Your task to perform on an android device: Open Yahoo.com Image 0: 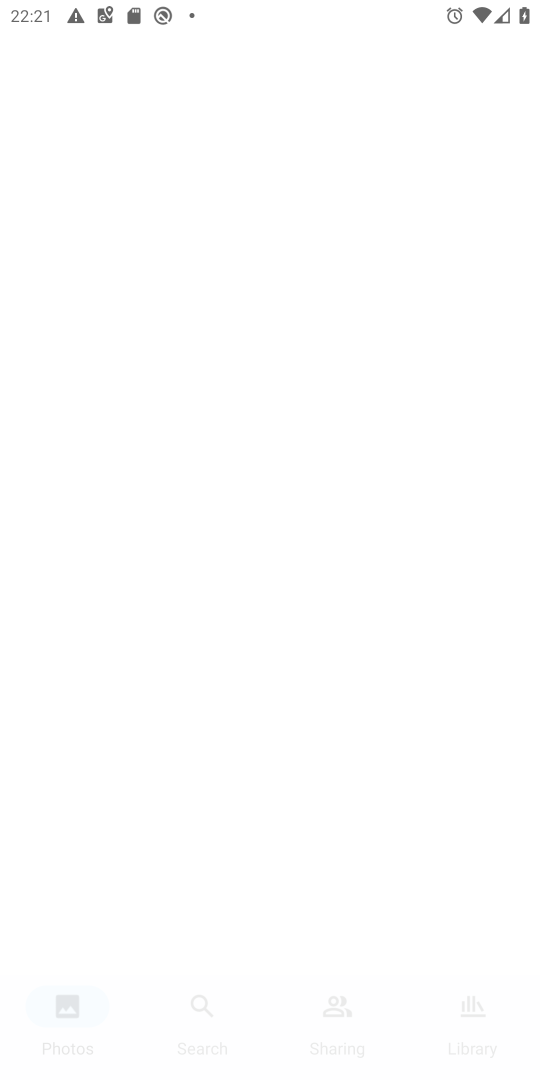
Step 0: press home button
Your task to perform on an android device: Open Yahoo.com Image 1: 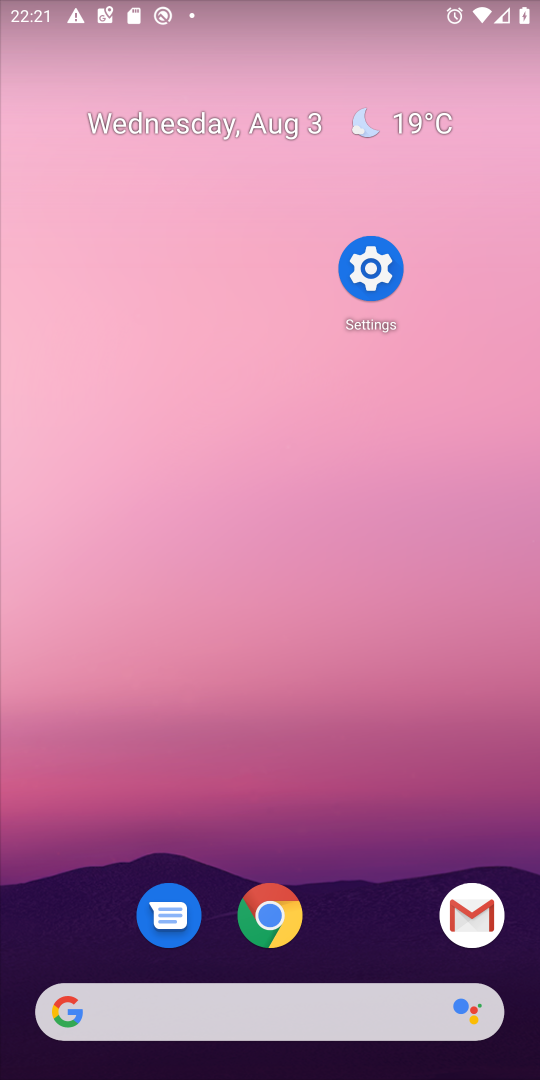
Step 1: drag from (298, 1024) to (238, 271)
Your task to perform on an android device: Open Yahoo.com Image 2: 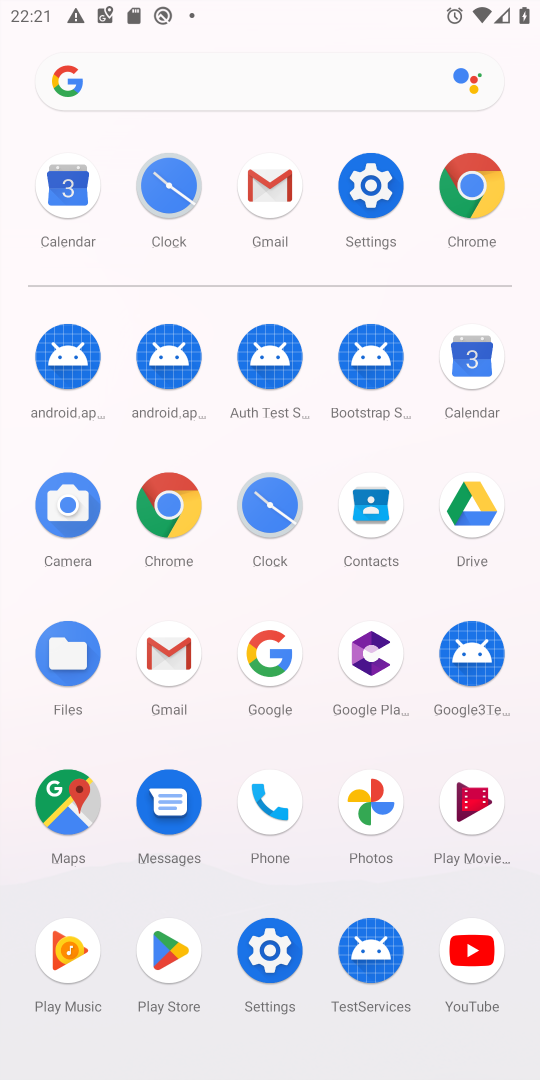
Step 2: click (466, 187)
Your task to perform on an android device: Open Yahoo.com Image 3: 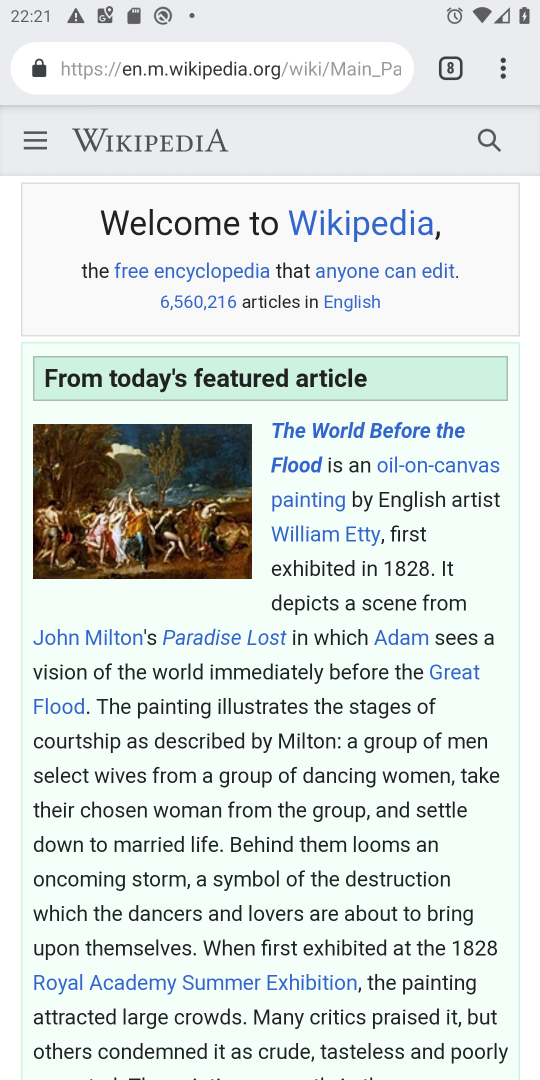
Step 3: click (445, 75)
Your task to perform on an android device: Open Yahoo.com Image 4: 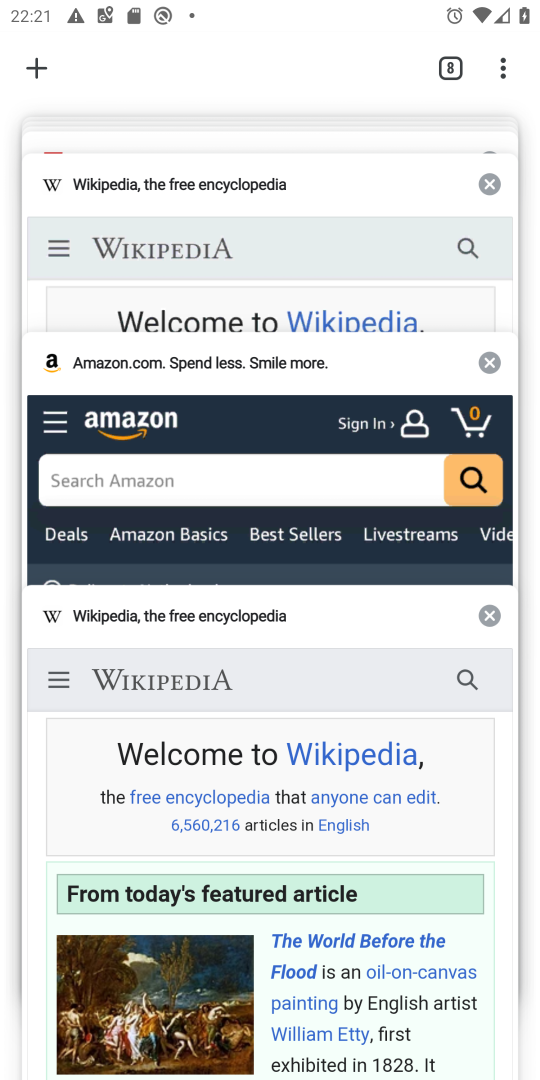
Step 4: click (30, 63)
Your task to perform on an android device: Open Yahoo.com Image 5: 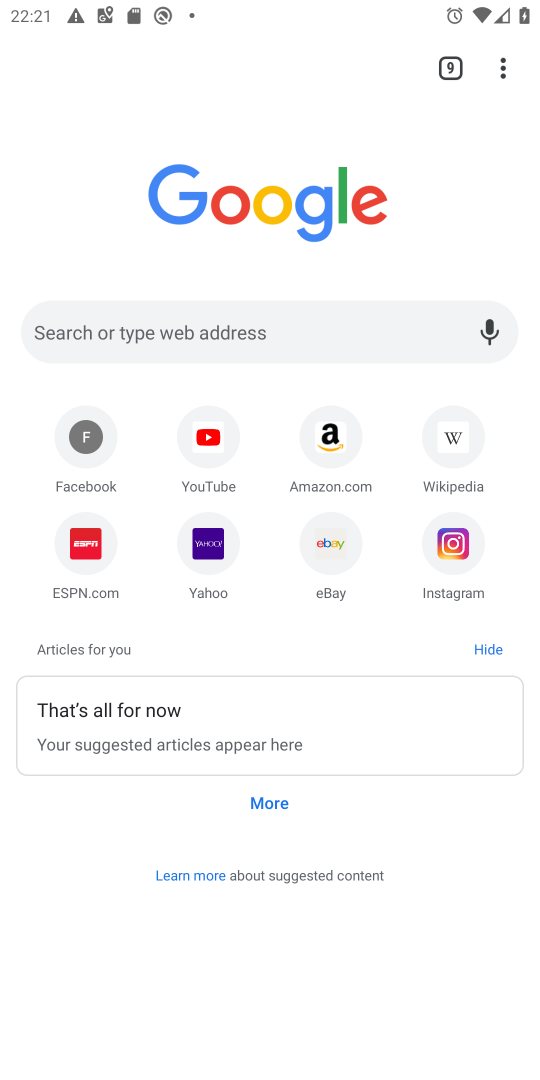
Step 5: click (212, 555)
Your task to perform on an android device: Open Yahoo.com Image 6: 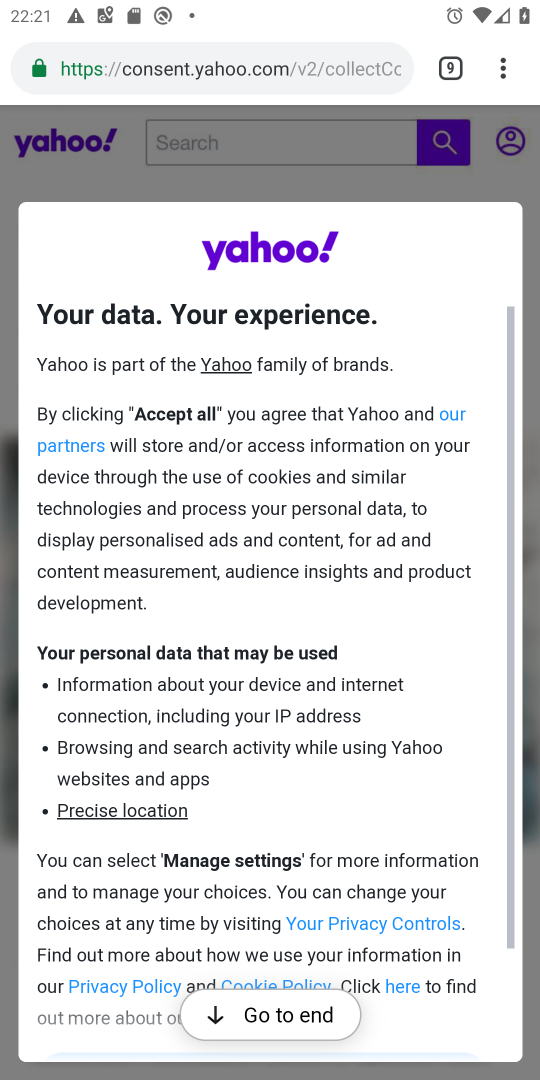
Step 6: drag from (276, 754) to (287, 608)
Your task to perform on an android device: Open Yahoo.com Image 7: 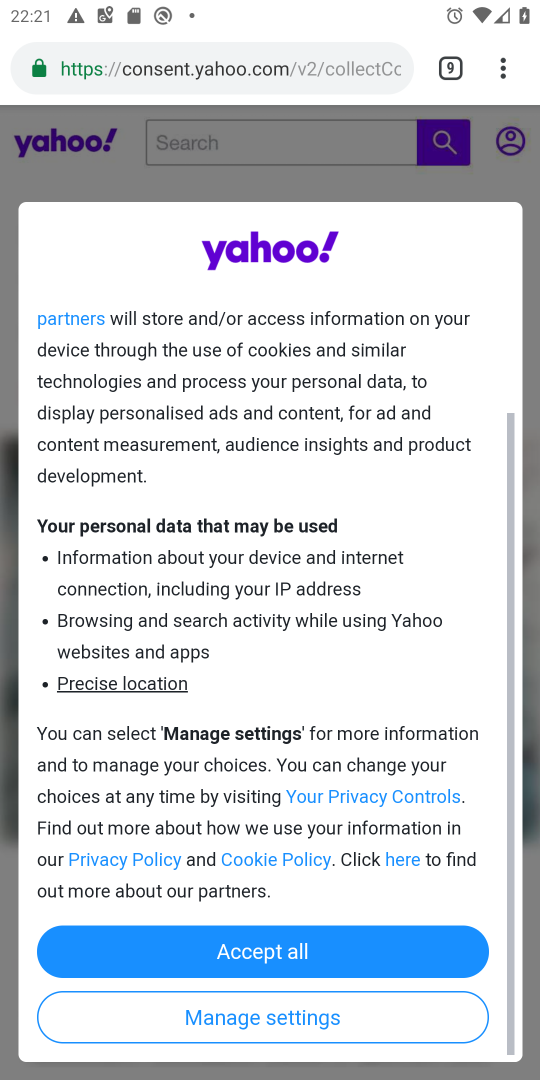
Step 7: click (256, 935)
Your task to perform on an android device: Open Yahoo.com Image 8: 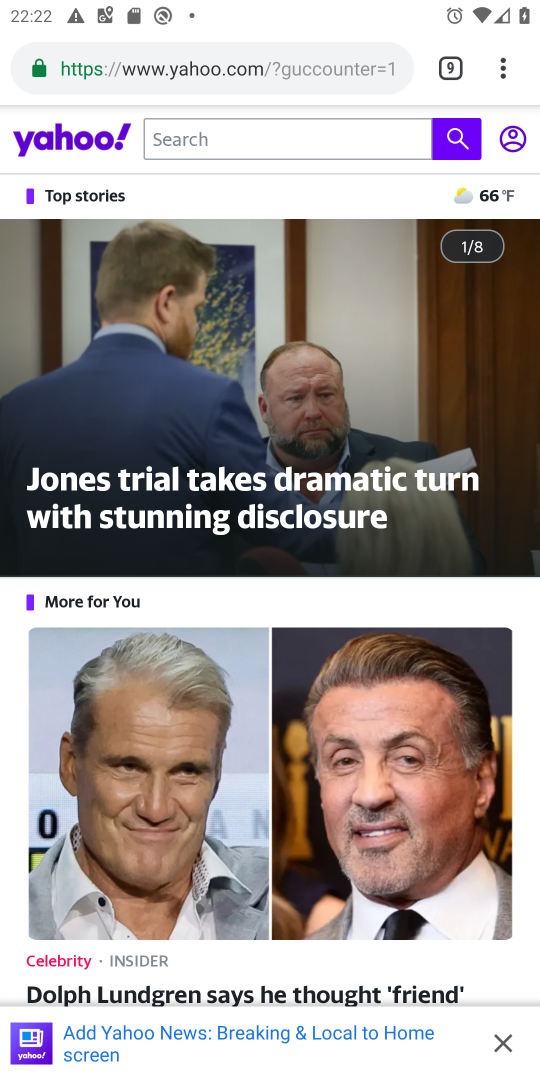
Step 8: task complete